Your task to perform on an android device: uninstall "WhatsApp Messenger" Image 0: 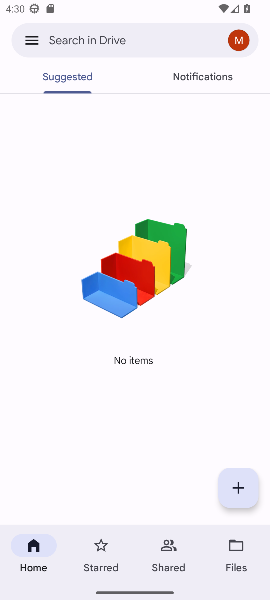
Step 0: press home button
Your task to perform on an android device: uninstall "WhatsApp Messenger" Image 1: 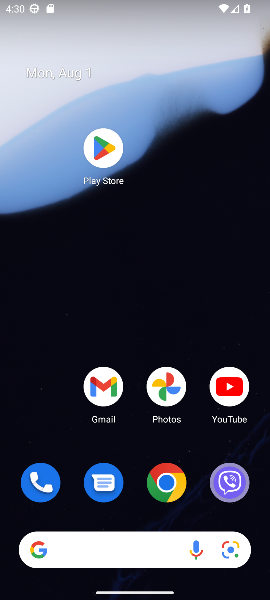
Step 1: click (107, 146)
Your task to perform on an android device: uninstall "WhatsApp Messenger" Image 2: 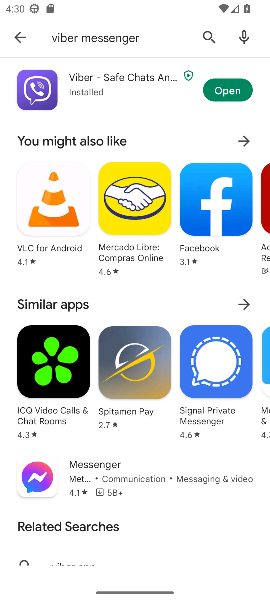
Step 2: click (203, 33)
Your task to perform on an android device: uninstall "WhatsApp Messenger" Image 3: 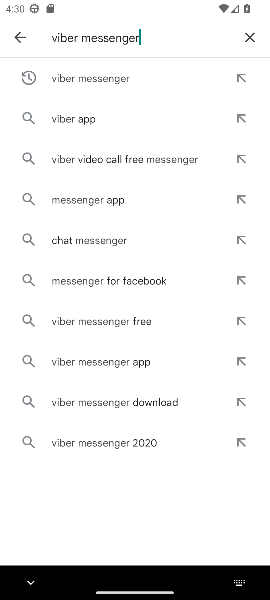
Step 3: click (251, 35)
Your task to perform on an android device: uninstall "WhatsApp Messenger" Image 4: 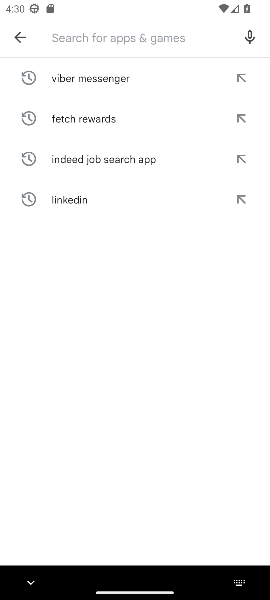
Step 4: type "WhatsApp Messenger"
Your task to perform on an android device: uninstall "WhatsApp Messenger" Image 5: 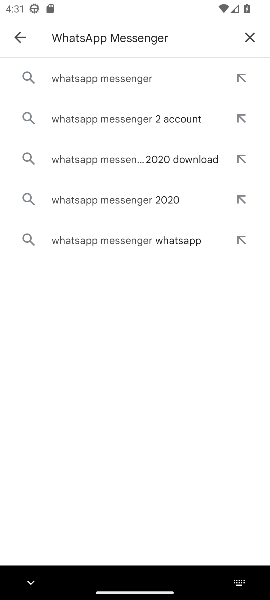
Step 5: click (109, 72)
Your task to perform on an android device: uninstall "WhatsApp Messenger" Image 6: 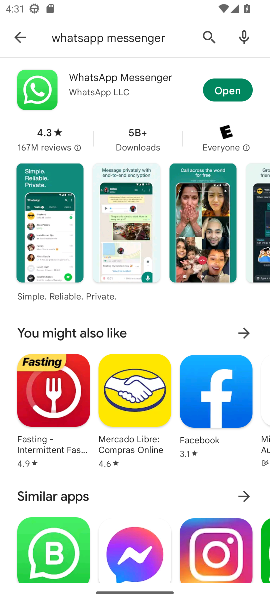
Step 6: click (44, 93)
Your task to perform on an android device: uninstall "WhatsApp Messenger" Image 7: 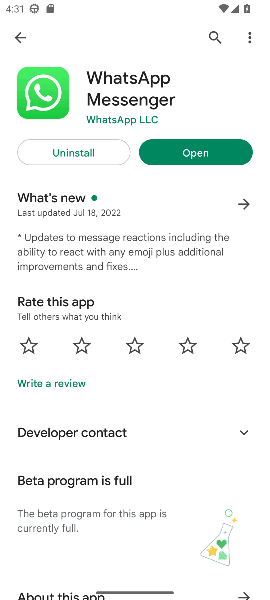
Step 7: click (76, 157)
Your task to perform on an android device: uninstall "WhatsApp Messenger" Image 8: 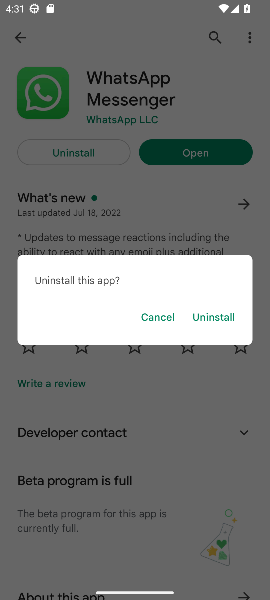
Step 8: click (209, 315)
Your task to perform on an android device: uninstall "WhatsApp Messenger" Image 9: 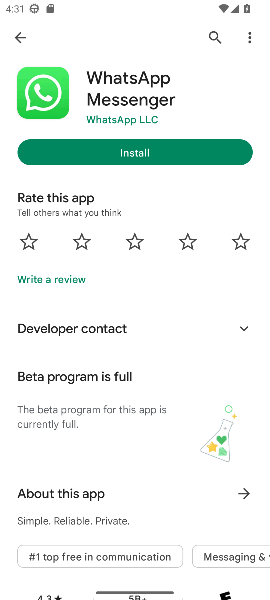
Step 9: task complete